Your task to perform on an android device: Check the news Image 0: 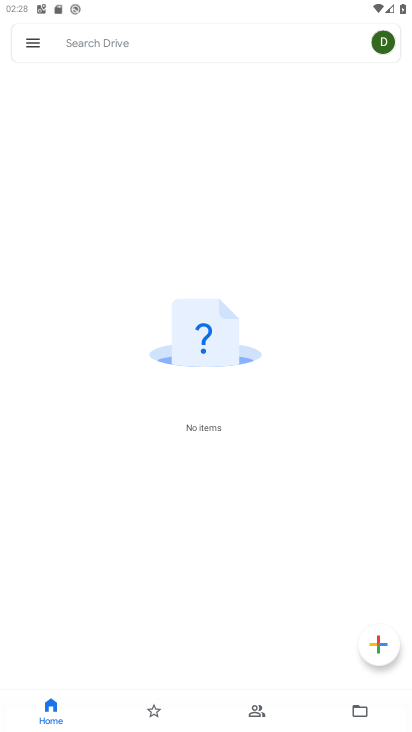
Step 0: press home button
Your task to perform on an android device: Check the news Image 1: 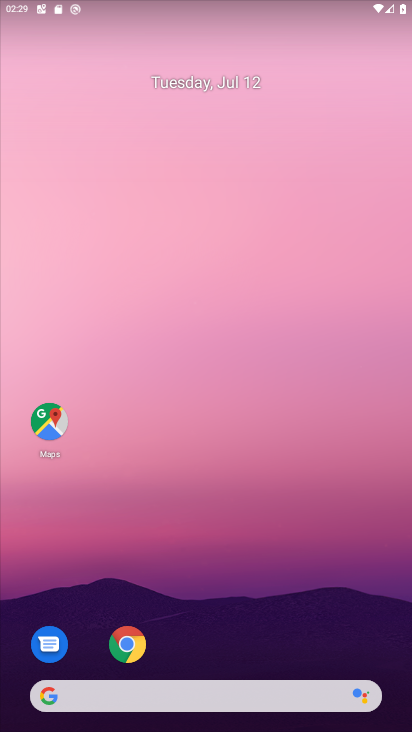
Step 1: click (212, 671)
Your task to perform on an android device: Check the news Image 2: 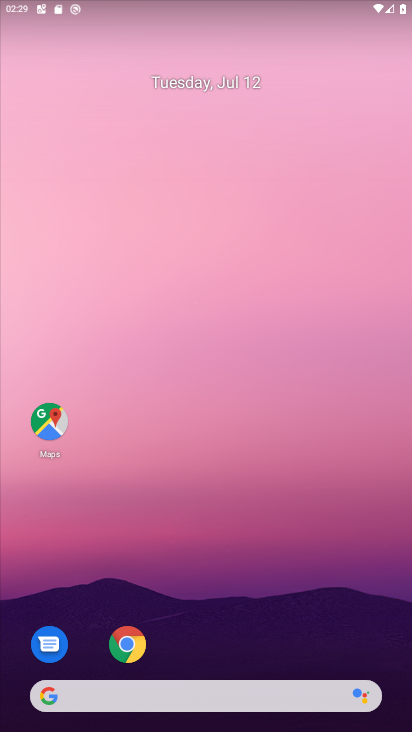
Step 2: task complete